Your task to perform on an android device: find which apps use the phone's location Image 0: 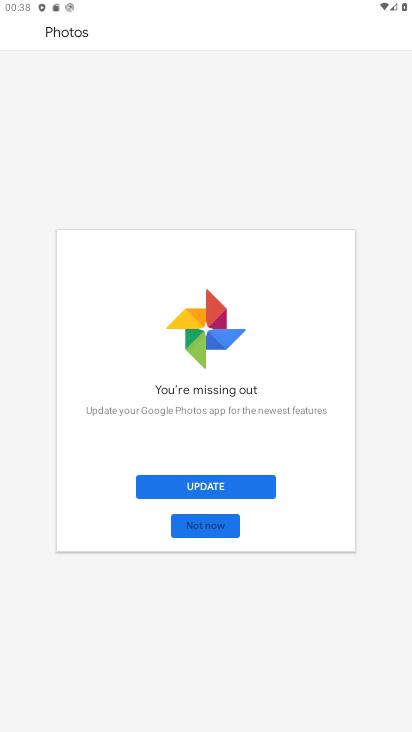
Step 0: press back button
Your task to perform on an android device: find which apps use the phone's location Image 1: 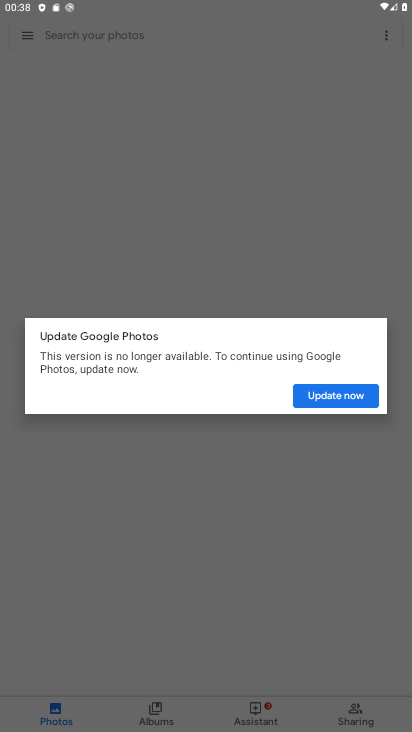
Step 1: click (212, 534)
Your task to perform on an android device: find which apps use the phone's location Image 2: 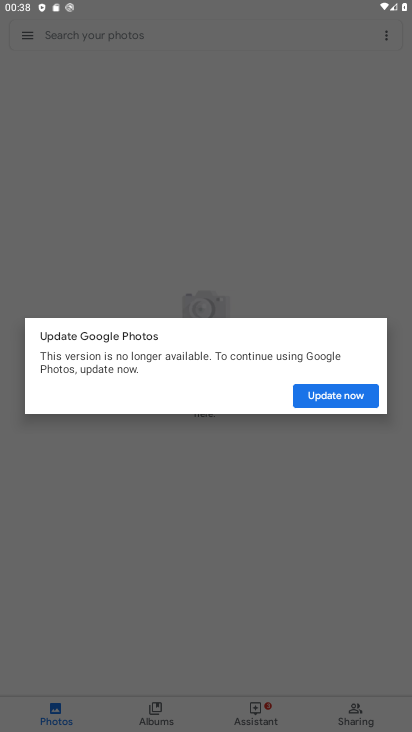
Step 2: drag from (275, 565) to (201, 142)
Your task to perform on an android device: find which apps use the phone's location Image 3: 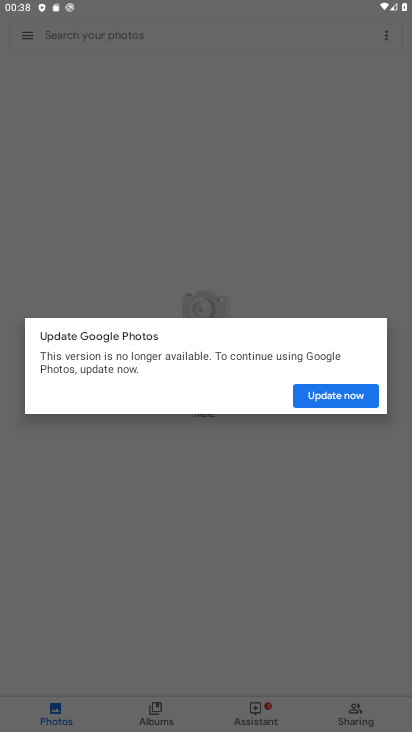
Step 3: click (335, 257)
Your task to perform on an android device: find which apps use the phone's location Image 4: 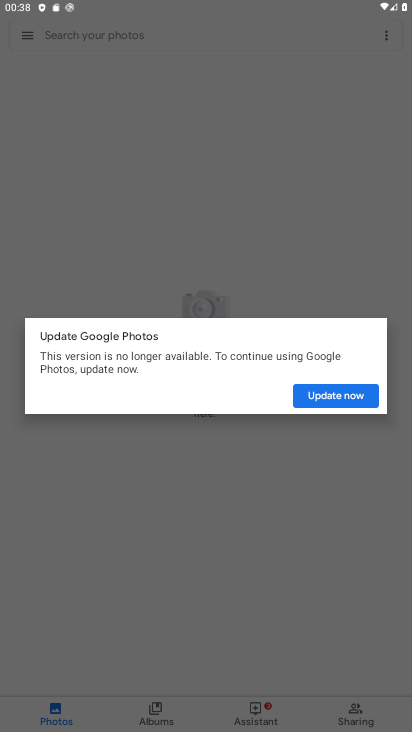
Step 4: click (326, 174)
Your task to perform on an android device: find which apps use the phone's location Image 5: 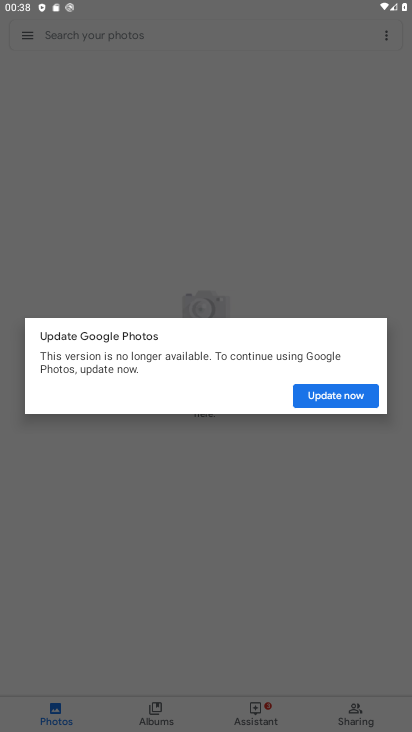
Step 5: click (230, 164)
Your task to perform on an android device: find which apps use the phone's location Image 6: 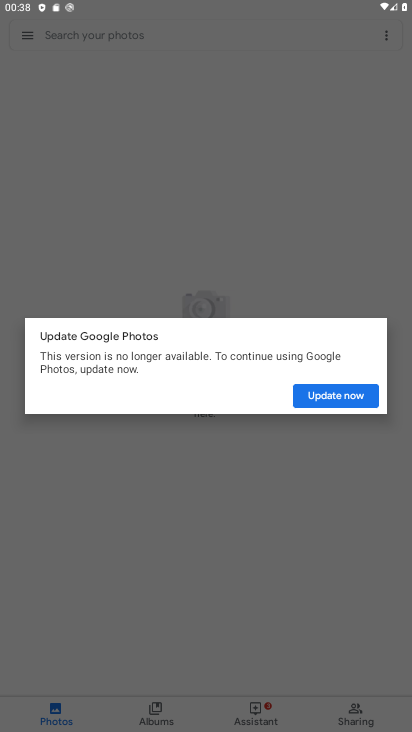
Step 6: click (333, 412)
Your task to perform on an android device: find which apps use the phone's location Image 7: 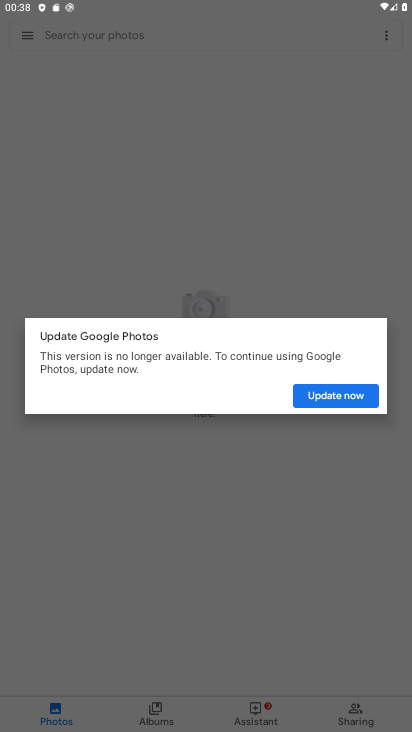
Step 7: click (224, 171)
Your task to perform on an android device: find which apps use the phone's location Image 8: 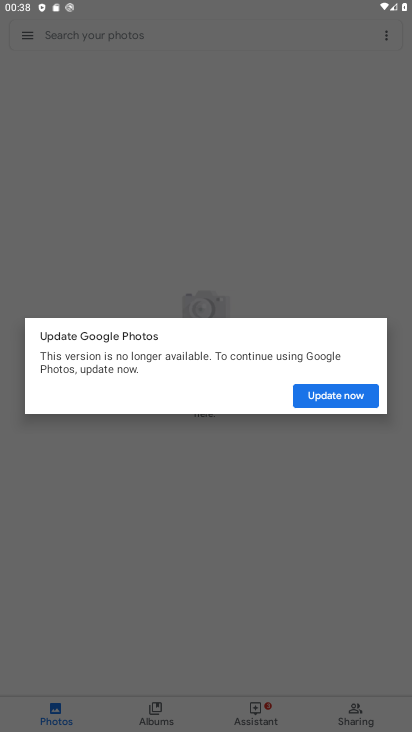
Step 8: click (223, 170)
Your task to perform on an android device: find which apps use the phone's location Image 9: 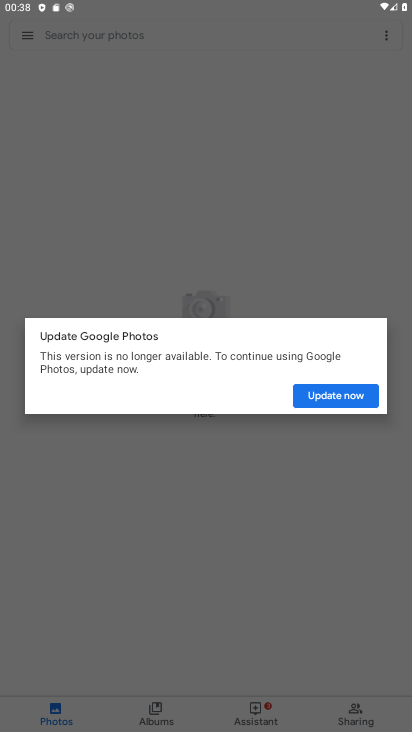
Step 9: click (227, 173)
Your task to perform on an android device: find which apps use the phone's location Image 10: 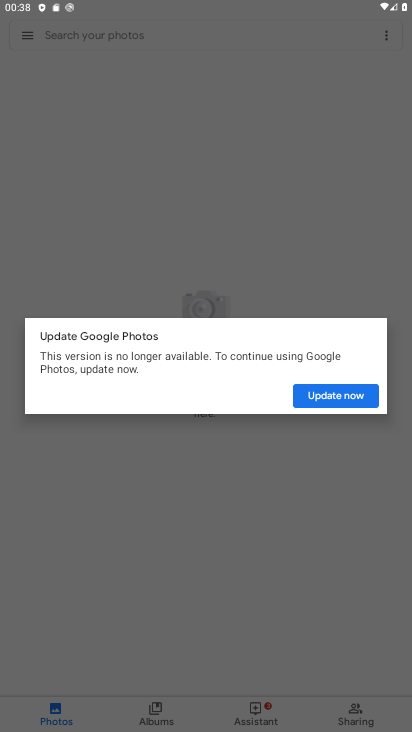
Step 10: click (229, 174)
Your task to perform on an android device: find which apps use the phone's location Image 11: 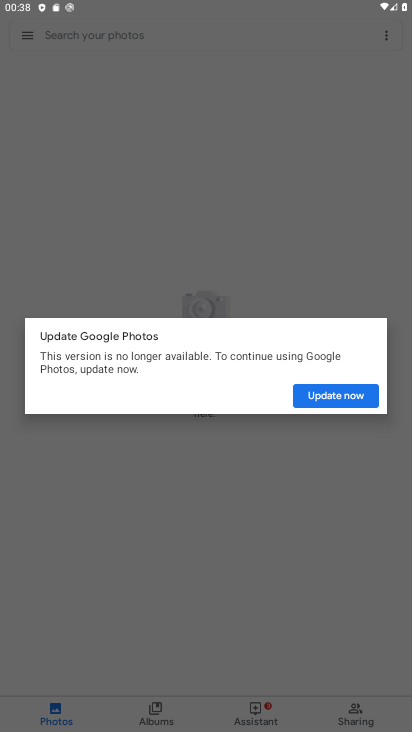
Step 11: click (230, 175)
Your task to perform on an android device: find which apps use the phone's location Image 12: 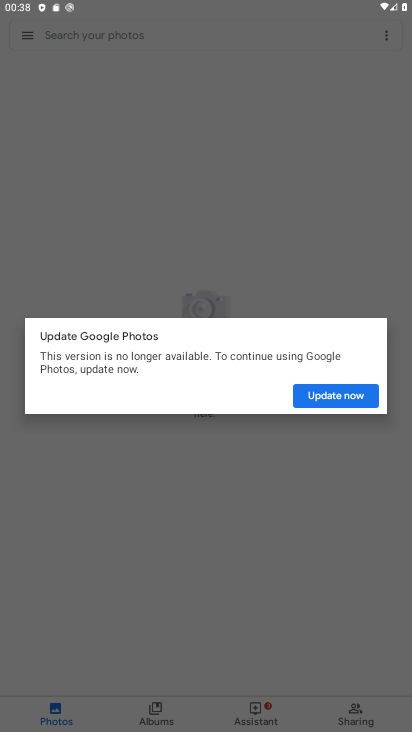
Step 12: click (255, 240)
Your task to perform on an android device: find which apps use the phone's location Image 13: 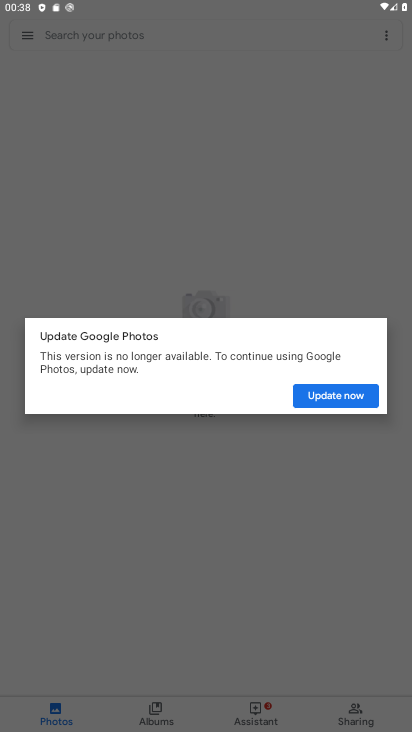
Step 13: click (255, 240)
Your task to perform on an android device: find which apps use the phone's location Image 14: 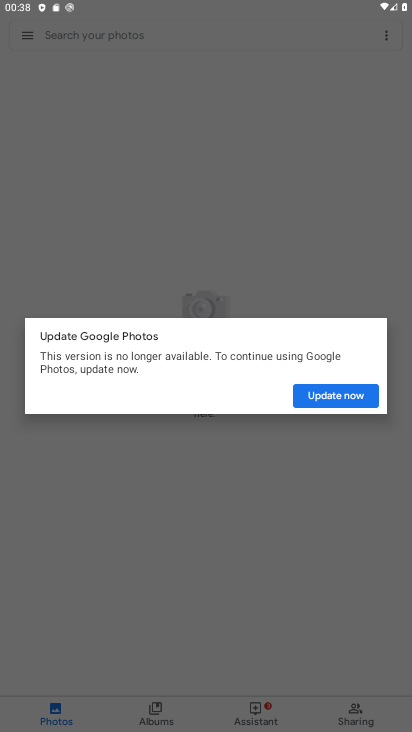
Step 14: click (255, 240)
Your task to perform on an android device: find which apps use the phone's location Image 15: 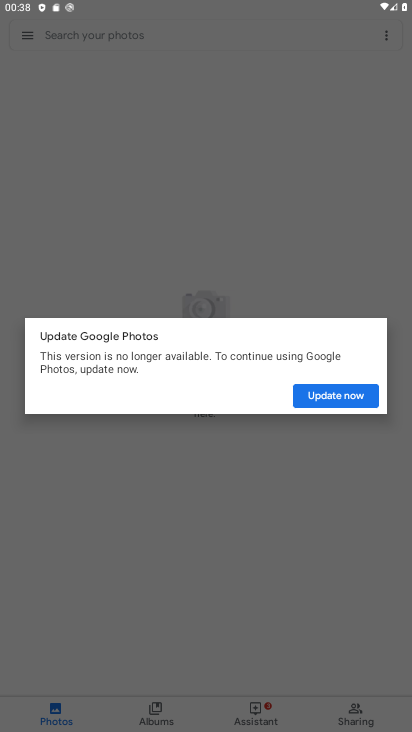
Step 15: click (256, 239)
Your task to perform on an android device: find which apps use the phone's location Image 16: 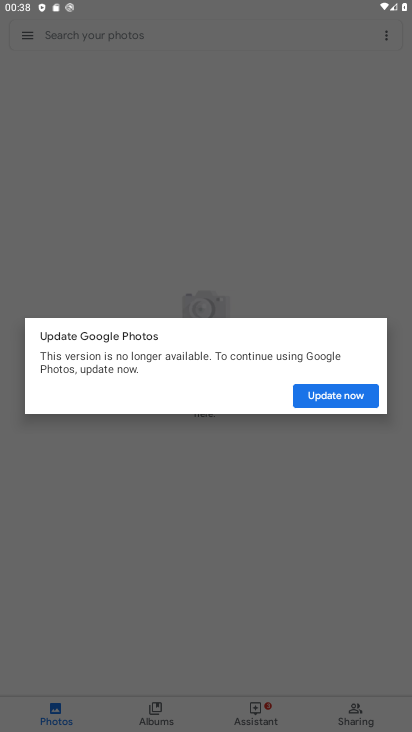
Step 16: click (228, 585)
Your task to perform on an android device: find which apps use the phone's location Image 17: 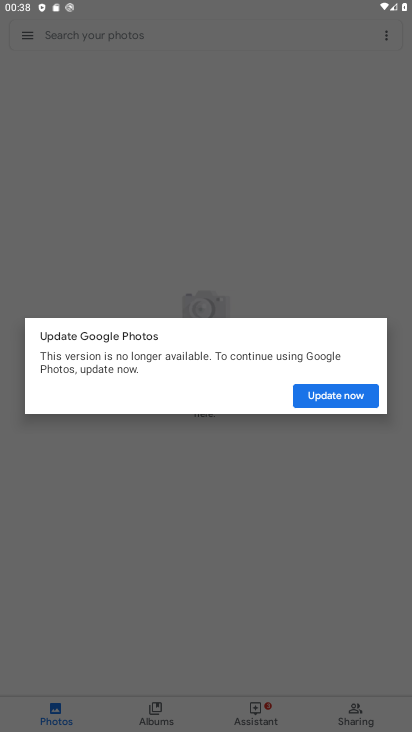
Step 17: press back button
Your task to perform on an android device: find which apps use the phone's location Image 18: 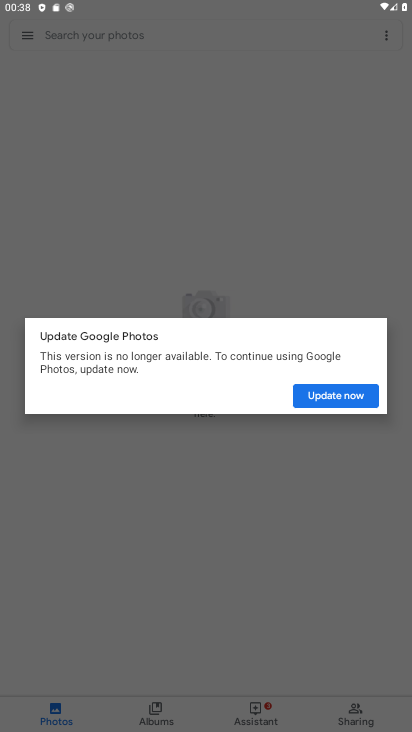
Step 18: press back button
Your task to perform on an android device: find which apps use the phone's location Image 19: 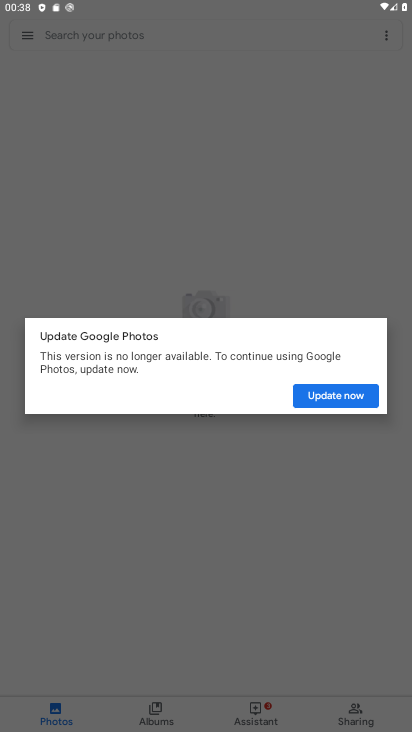
Step 19: press back button
Your task to perform on an android device: find which apps use the phone's location Image 20: 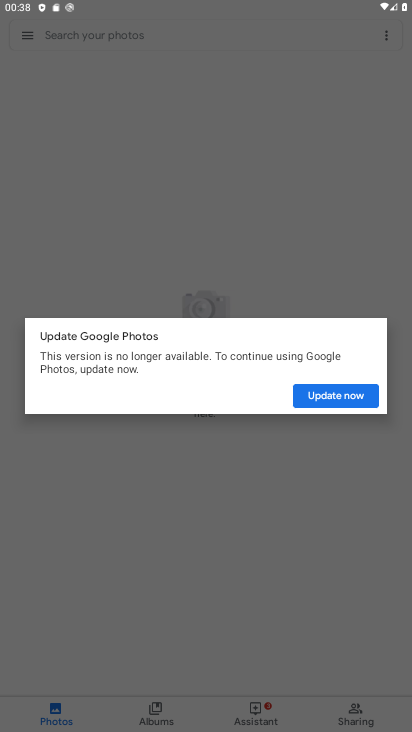
Step 20: press back button
Your task to perform on an android device: find which apps use the phone's location Image 21: 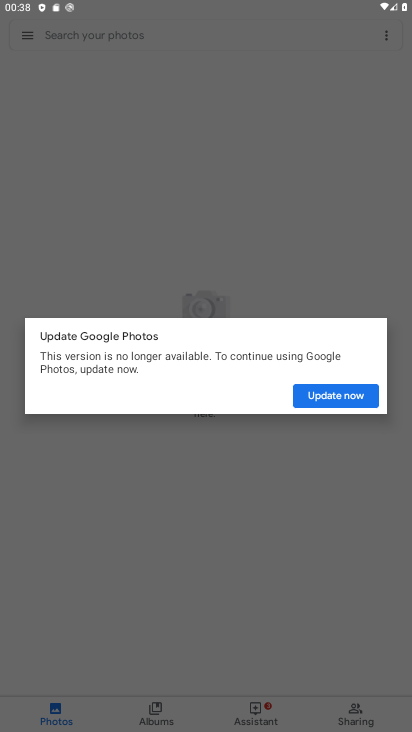
Step 21: press back button
Your task to perform on an android device: find which apps use the phone's location Image 22: 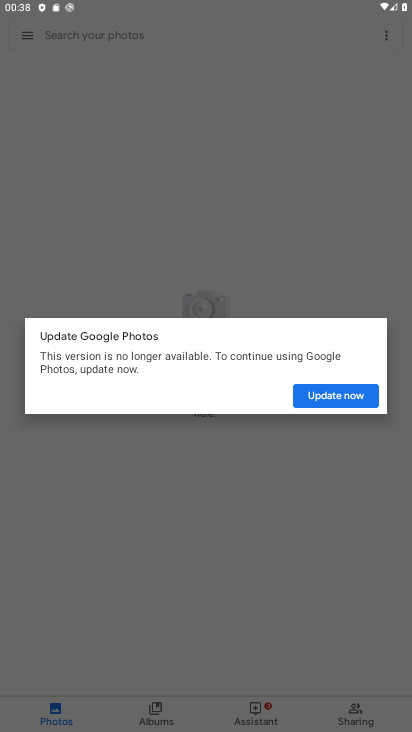
Step 22: press back button
Your task to perform on an android device: find which apps use the phone's location Image 23: 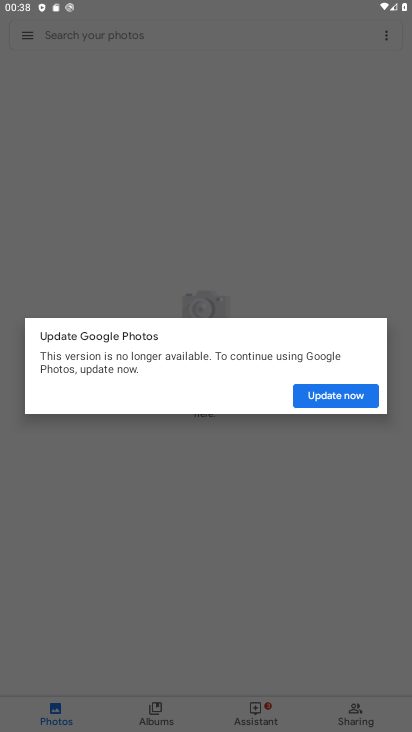
Step 23: click (259, 147)
Your task to perform on an android device: find which apps use the phone's location Image 24: 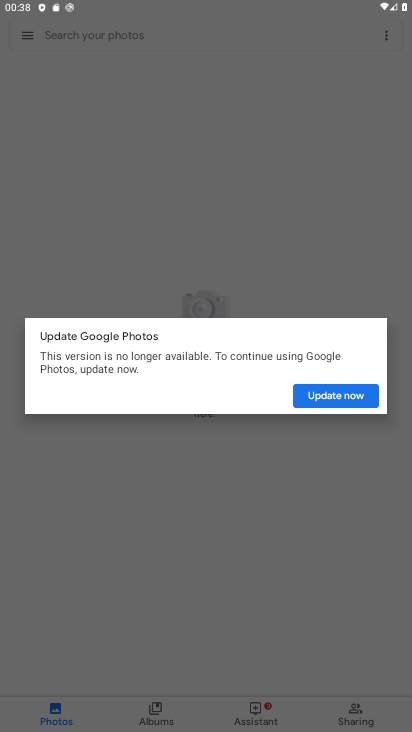
Step 24: click (278, 190)
Your task to perform on an android device: find which apps use the phone's location Image 25: 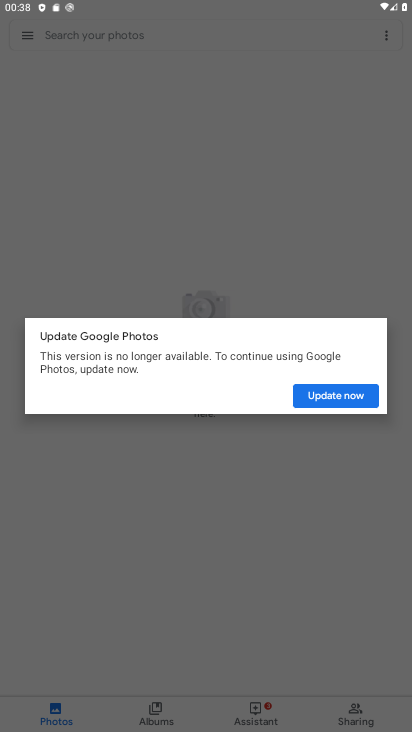
Step 25: click (285, 197)
Your task to perform on an android device: find which apps use the phone's location Image 26: 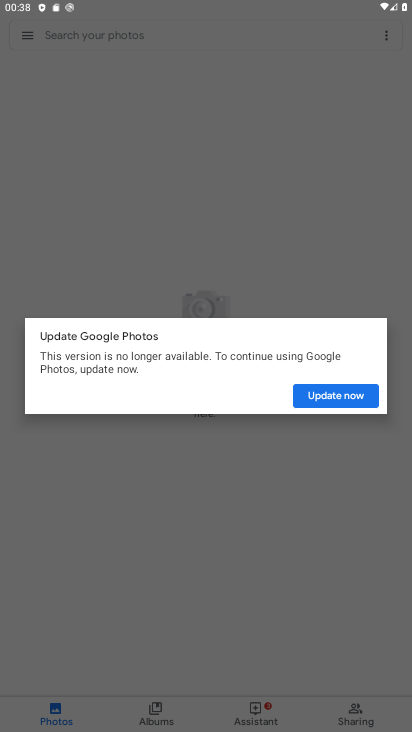
Step 26: press home button
Your task to perform on an android device: find which apps use the phone's location Image 27: 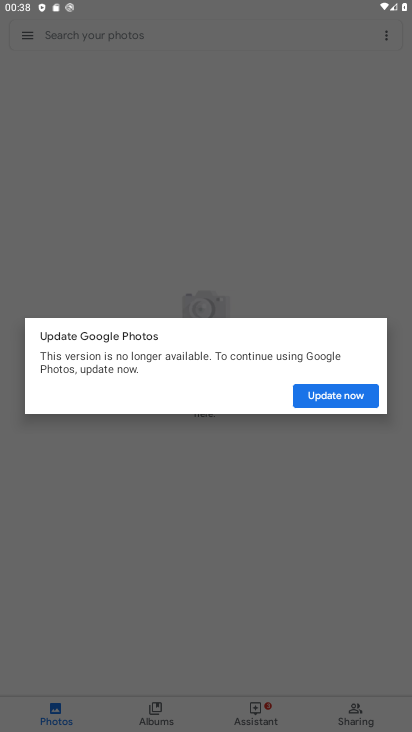
Step 27: press home button
Your task to perform on an android device: find which apps use the phone's location Image 28: 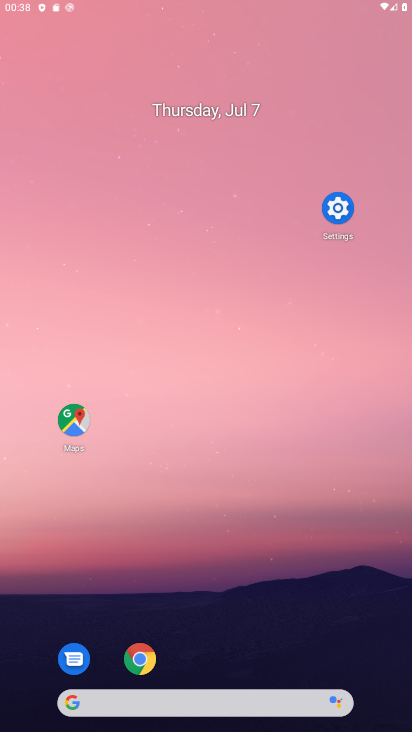
Step 28: press home button
Your task to perform on an android device: find which apps use the phone's location Image 29: 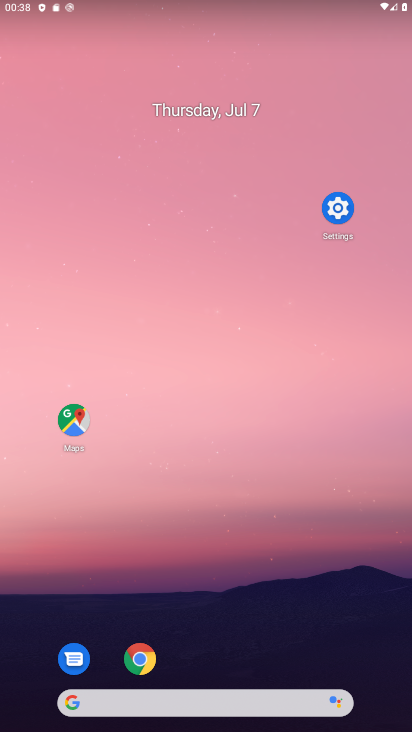
Step 29: drag from (253, 471) to (198, 8)
Your task to perform on an android device: find which apps use the phone's location Image 30: 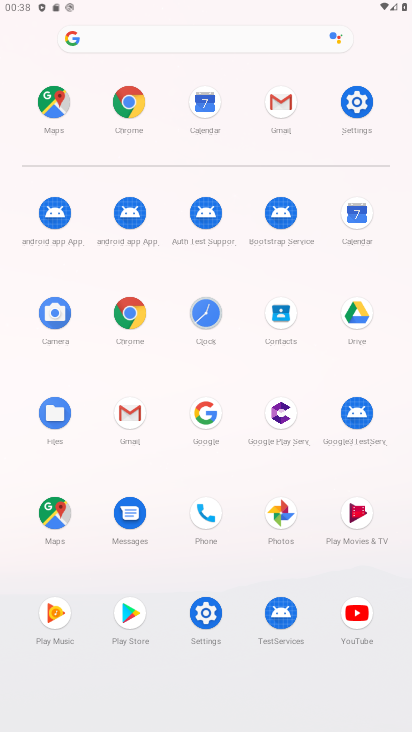
Step 30: click (360, 105)
Your task to perform on an android device: find which apps use the phone's location Image 31: 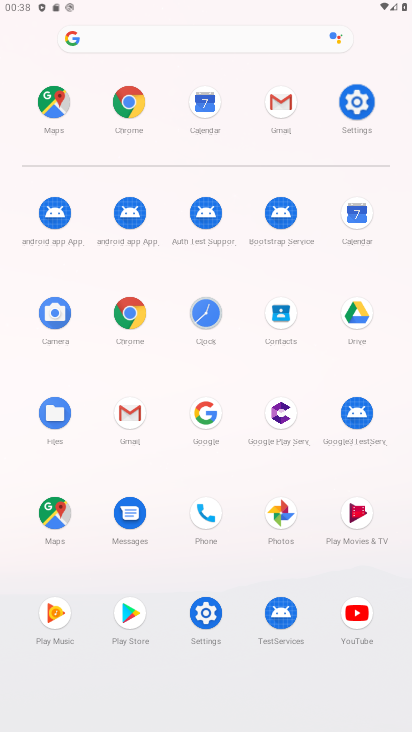
Step 31: click (362, 106)
Your task to perform on an android device: find which apps use the phone's location Image 32: 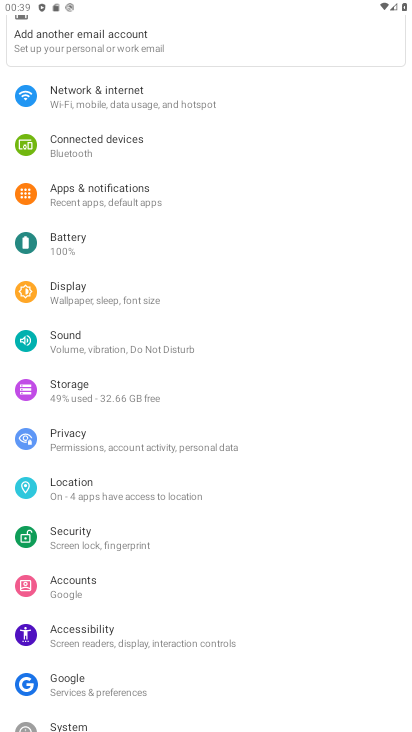
Step 32: click (62, 482)
Your task to perform on an android device: find which apps use the phone's location Image 33: 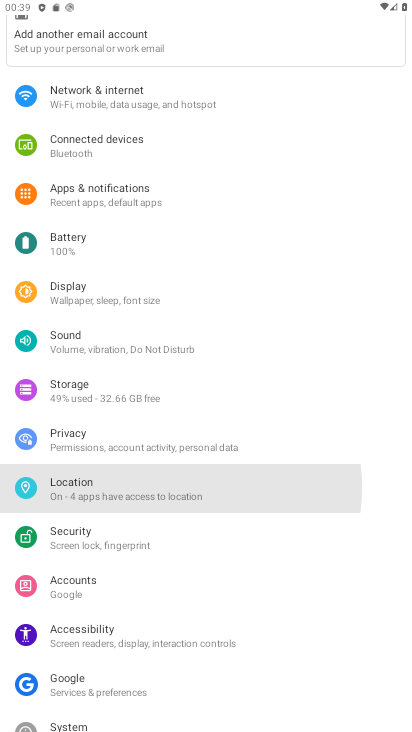
Step 33: click (62, 482)
Your task to perform on an android device: find which apps use the phone's location Image 34: 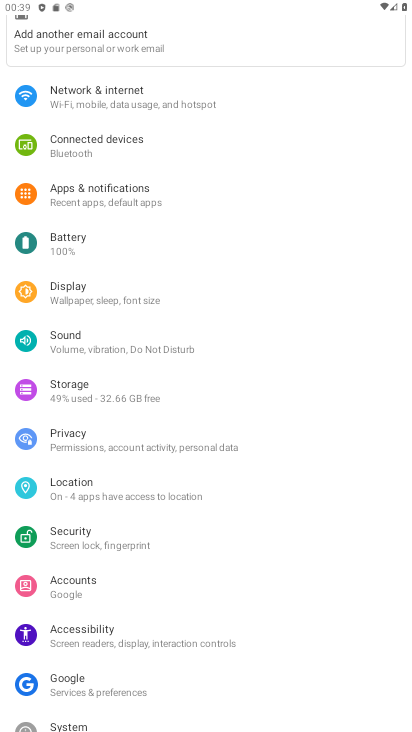
Step 34: click (66, 486)
Your task to perform on an android device: find which apps use the phone's location Image 35: 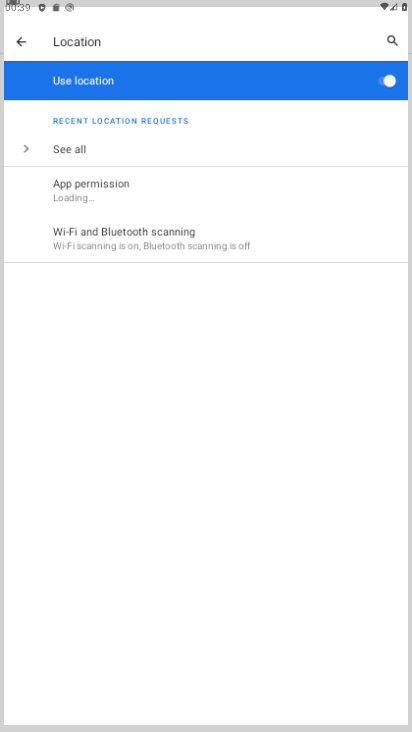
Step 35: click (67, 487)
Your task to perform on an android device: find which apps use the phone's location Image 36: 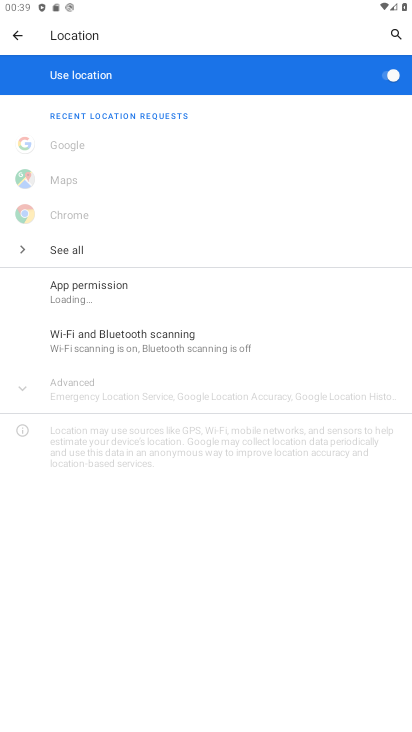
Step 36: click (67, 487)
Your task to perform on an android device: find which apps use the phone's location Image 37: 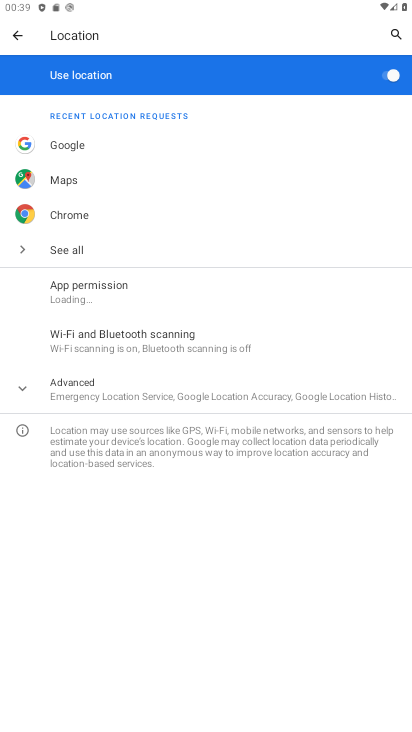
Step 37: click (69, 491)
Your task to perform on an android device: find which apps use the phone's location Image 38: 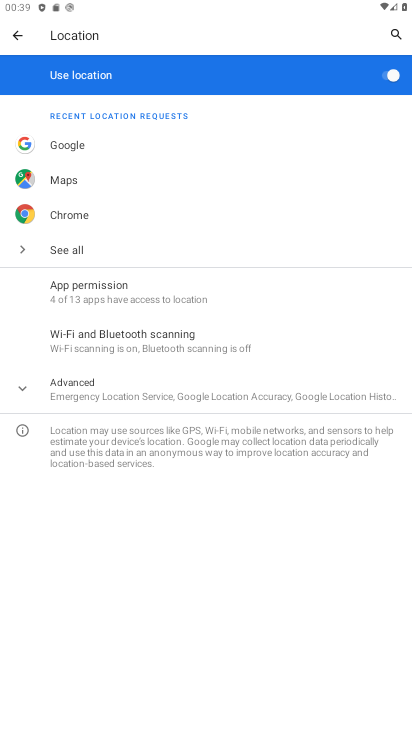
Step 38: click (17, 30)
Your task to perform on an android device: find which apps use the phone's location Image 39: 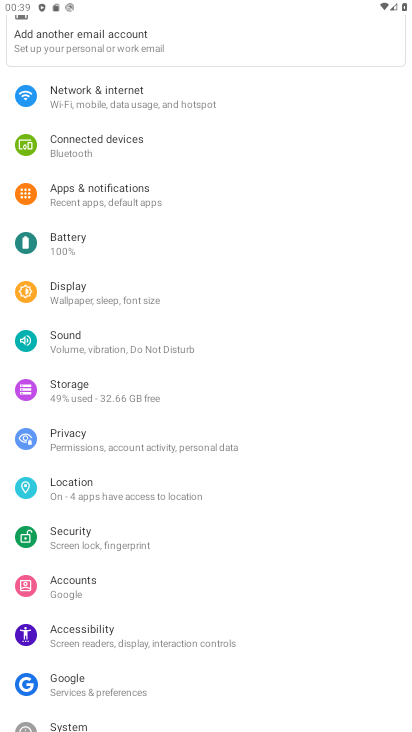
Step 39: click (75, 480)
Your task to perform on an android device: find which apps use the phone's location Image 40: 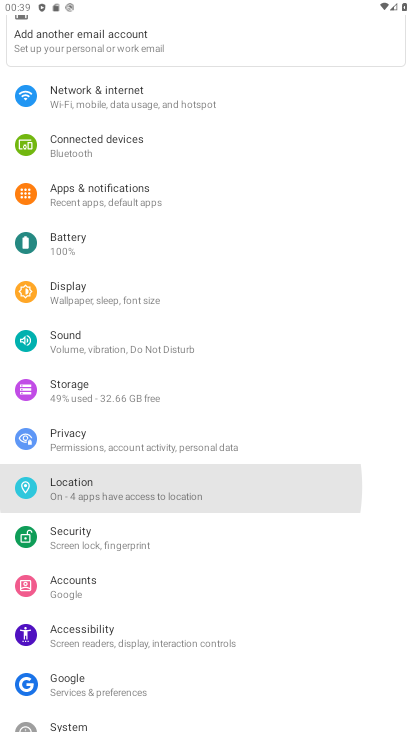
Step 40: click (88, 486)
Your task to perform on an android device: find which apps use the phone's location Image 41: 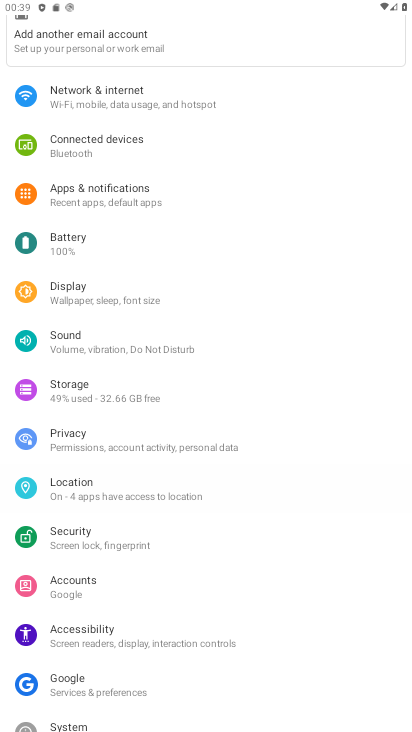
Step 41: click (88, 486)
Your task to perform on an android device: find which apps use the phone's location Image 42: 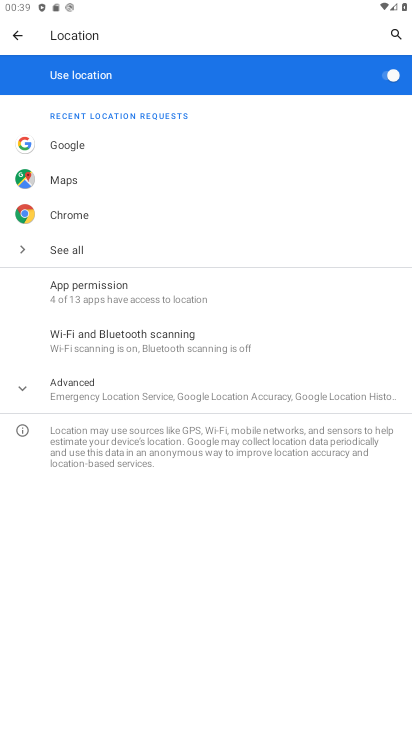
Step 42: click (88, 505)
Your task to perform on an android device: find which apps use the phone's location Image 43: 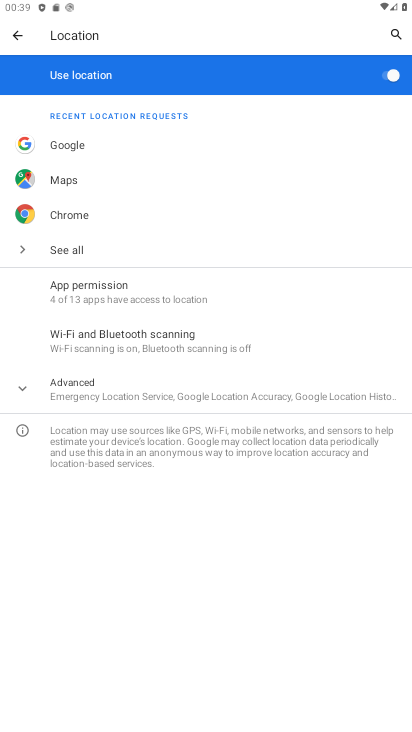
Step 43: click (77, 302)
Your task to perform on an android device: find which apps use the phone's location Image 44: 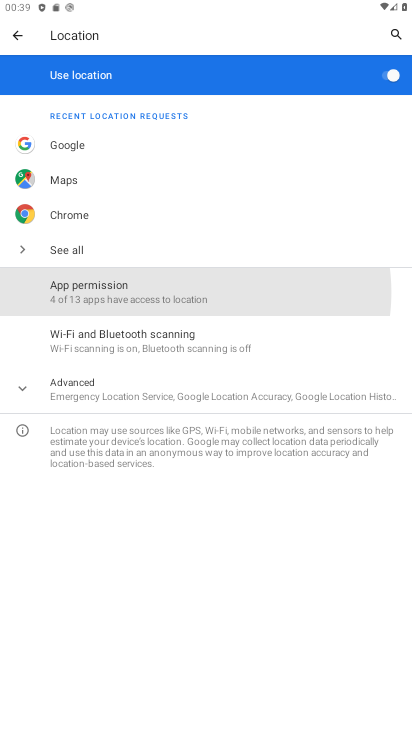
Step 44: click (88, 292)
Your task to perform on an android device: find which apps use the phone's location Image 45: 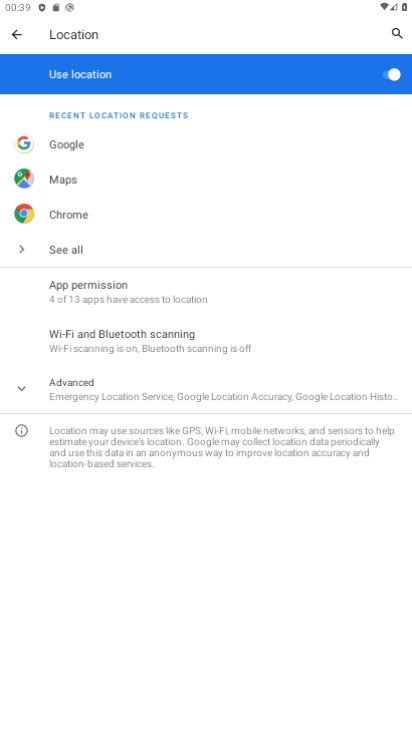
Step 45: click (95, 290)
Your task to perform on an android device: find which apps use the phone's location Image 46: 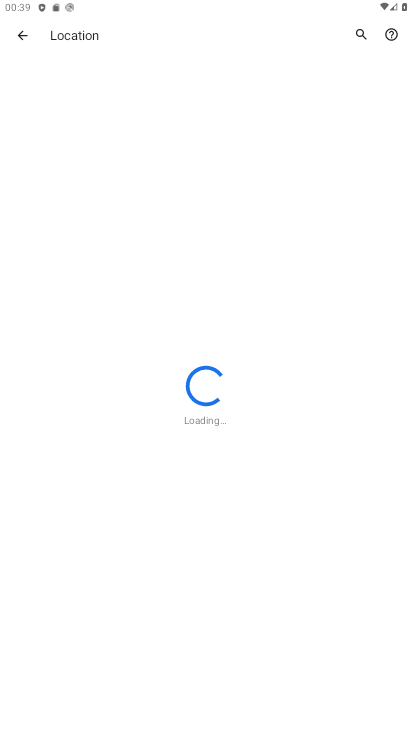
Step 46: click (97, 287)
Your task to perform on an android device: find which apps use the phone's location Image 47: 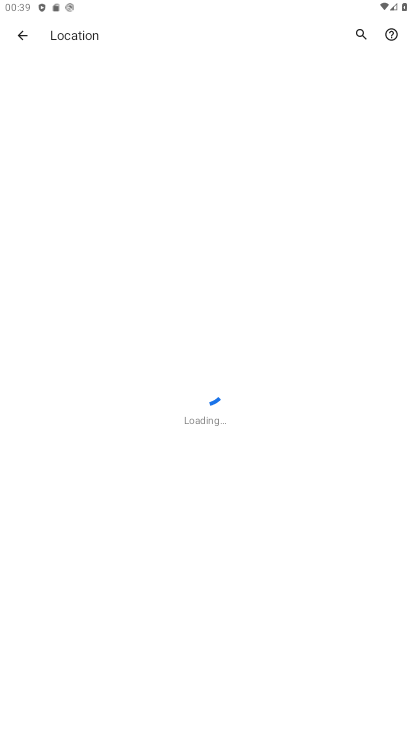
Step 47: click (97, 288)
Your task to perform on an android device: find which apps use the phone's location Image 48: 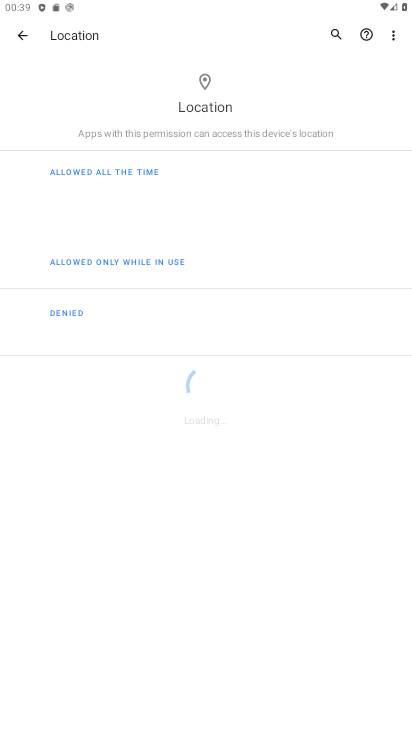
Step 48: click (96, 290)
Your task to perform on an android device: find which apps use the phone's location Image 49: 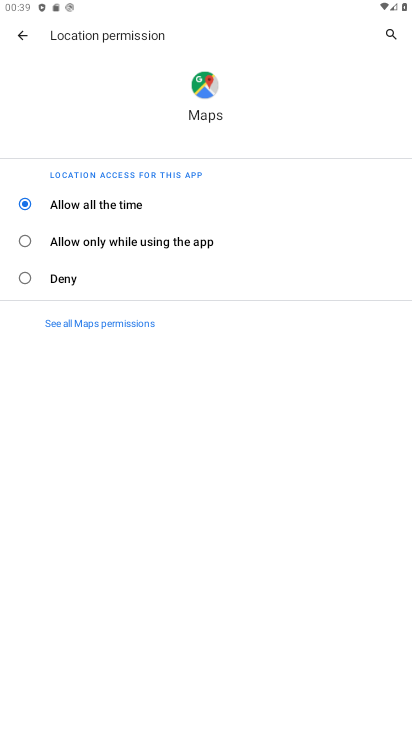
Step 49: task complete